Your task to perform on an android device: toggle sleep mode Image 0: 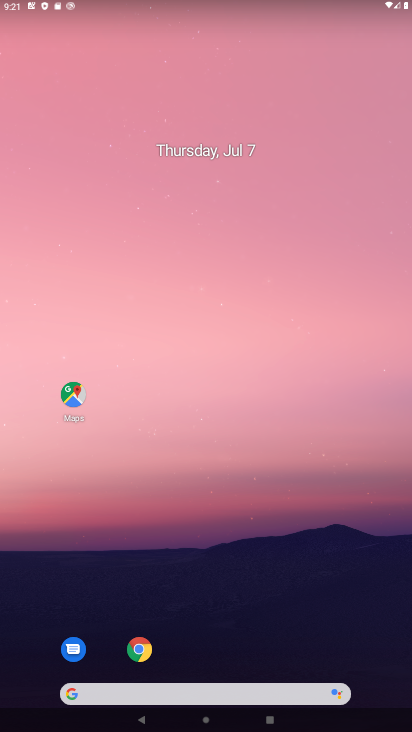
Step 0: drag from (245, 725) to (245, 110)
Your task to perform on an android device: toggle sleep mode Image 1: 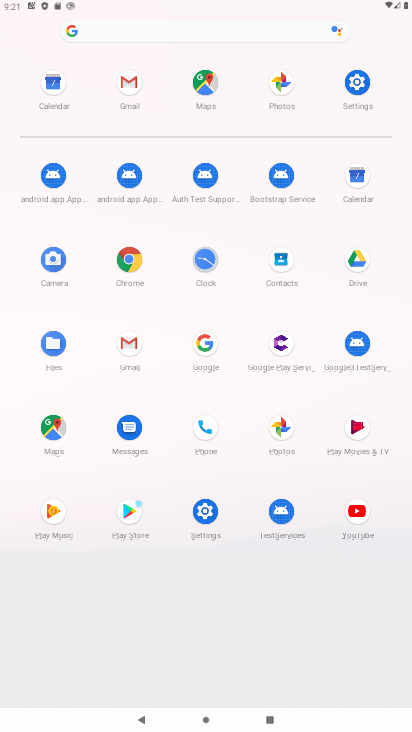
Step 1: click (359, 83)
Your task to perform on an android device: toggle sleep mode Image 2: 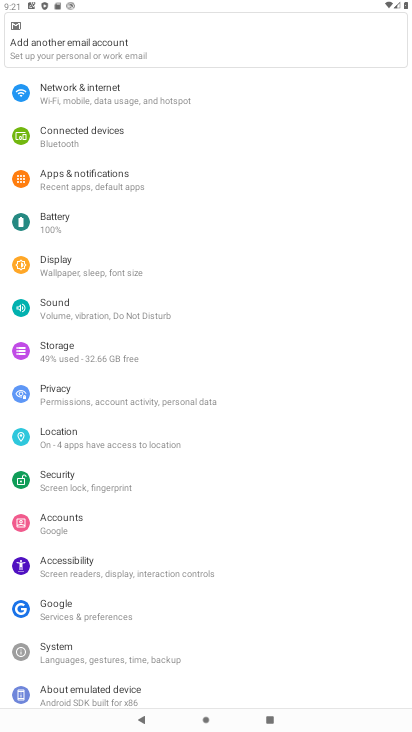
Step 2: click (98, 92)
Your task to perform on an android device: toggle sleep mode Image 3: 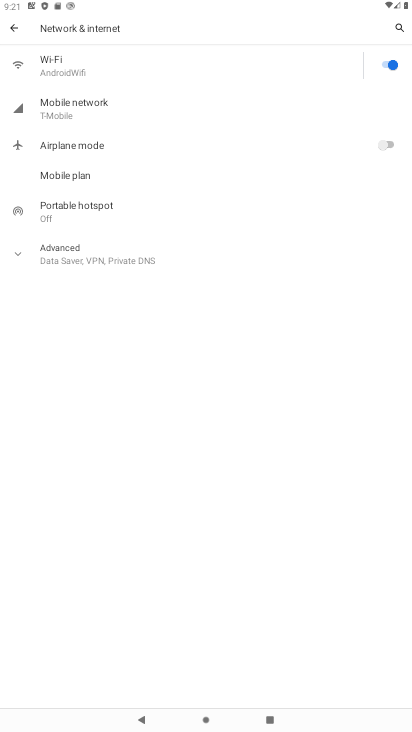
Step 3: click (14, 20)
Your task to perform on an android device: toggle sleep mode Image 4: 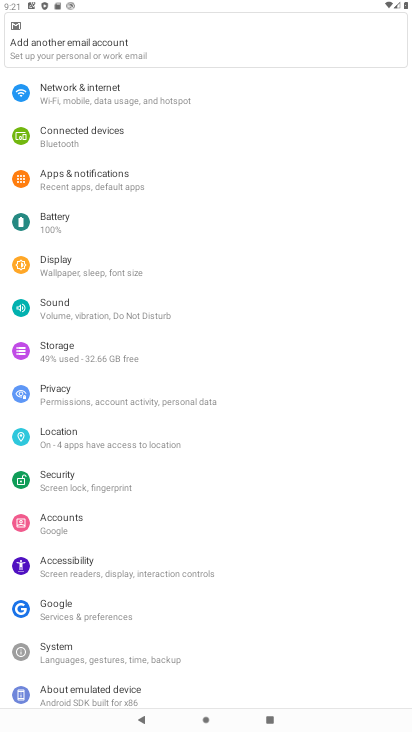
Step 4: task complete